Your task to perform on an android device: turn on airplane mode Image 0: 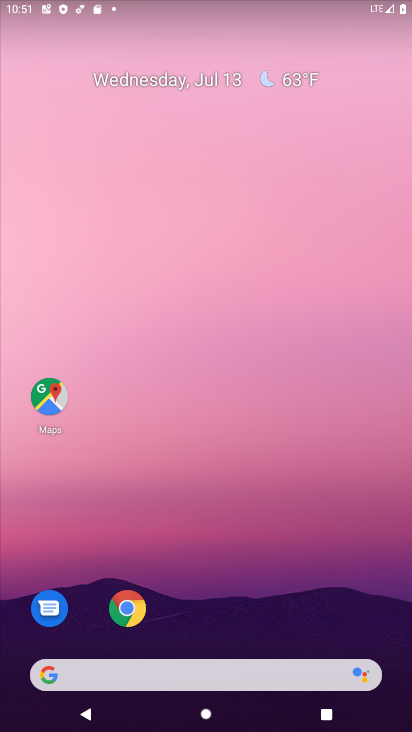
Step 0: drag from (211, 4) to (174, 378)
Your task to perform on an android device: turn on airplane mode Image 1: 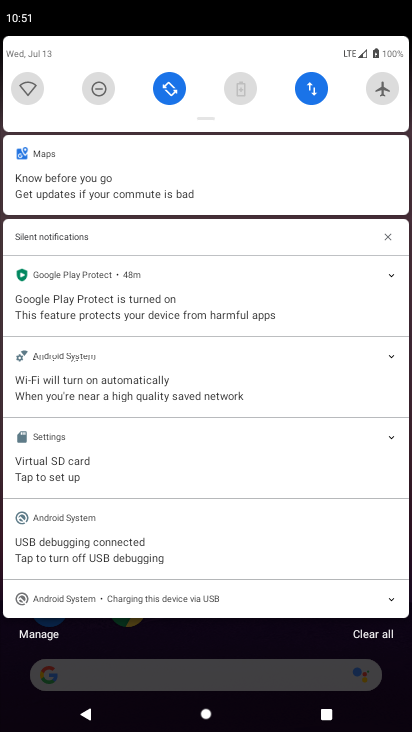
Step 1: click (380, 81)
Your task to perform on an android device: turn on airplane mode Image 2: 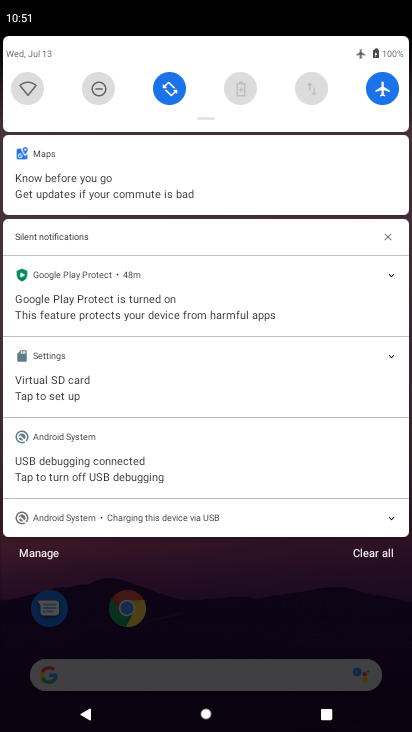
Step 2: task complete